Your task to perform on an android device: Open the map Image 0: 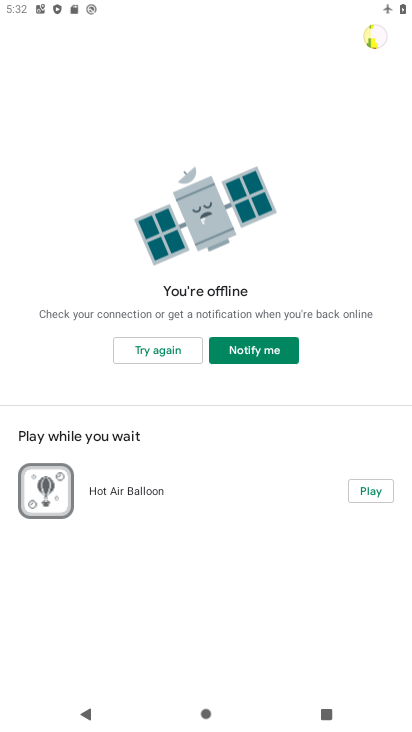
Step 0: press home button
Your task to perform on an android device: Open the map Image 1: 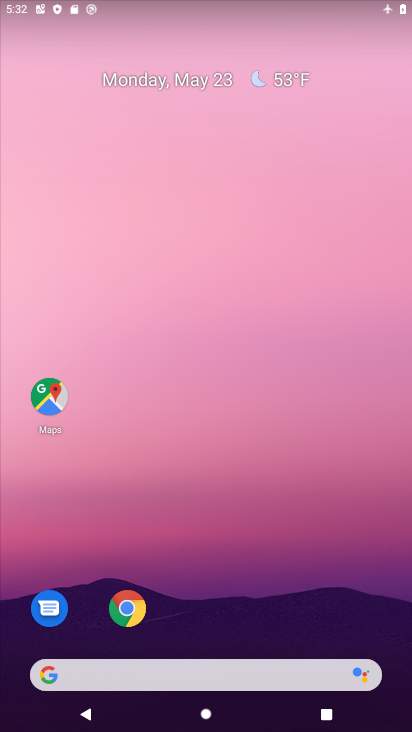
Step 1: drag from (230, 638) to (193, 129)
Your task to perform on an android device: Open the map Image 2: 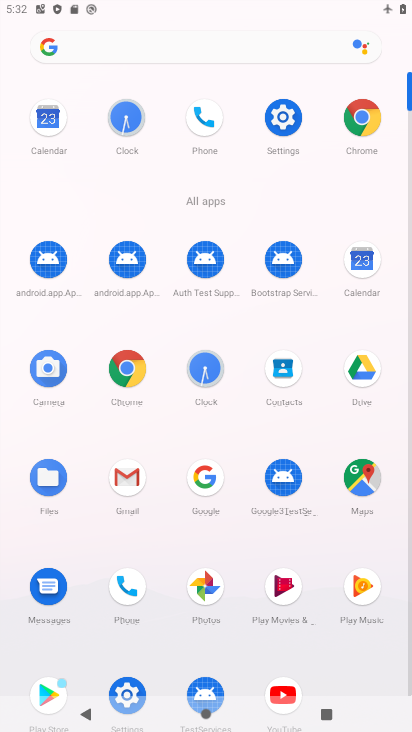
Step 2: drag from (161, 200) to (164, 70)
Your task to perform on an android device: Open the map Image 3: 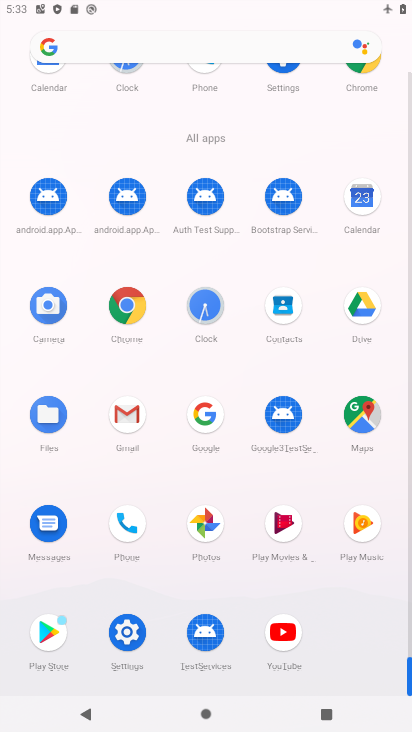
Step 3: click (357, 434)
Your task to perform on an android device: Open the map Image 4: 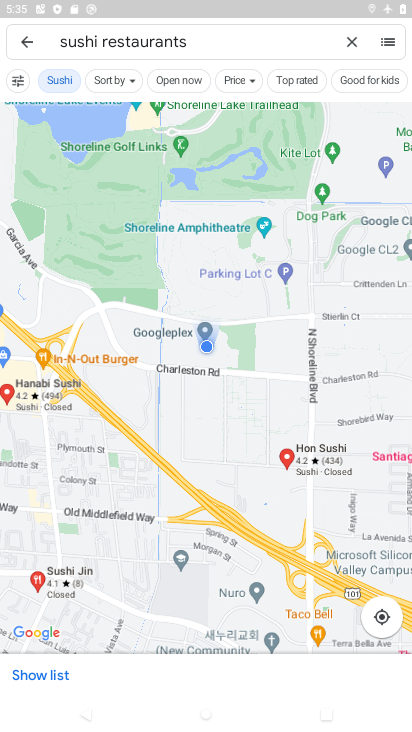
Step 4: task complete